Your task to perform on an android device: Open Yahoo.com Image 0: 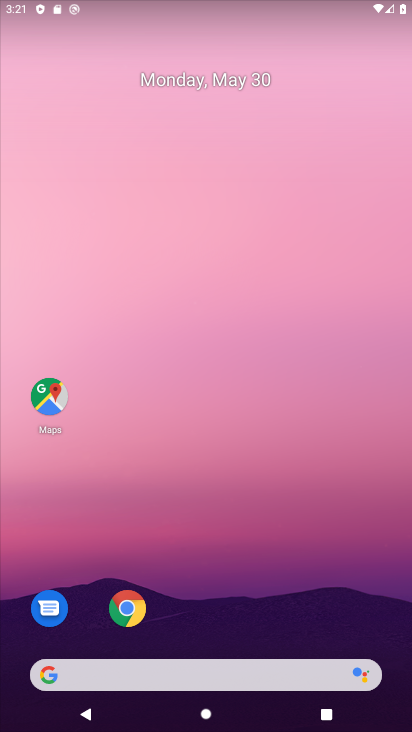
Step 0: click (134, 603)
Your task to perform on an android device: Open Yahoo.com Image 1: 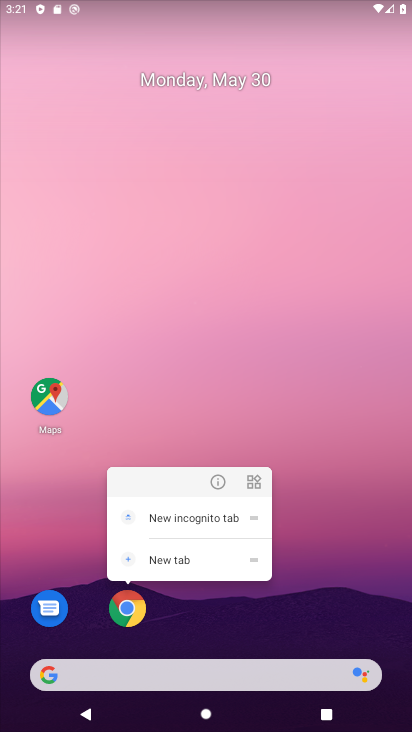
Step 1: click (121, 607)
Your task to perform on an android device: Open Yahoo.com Image 2: 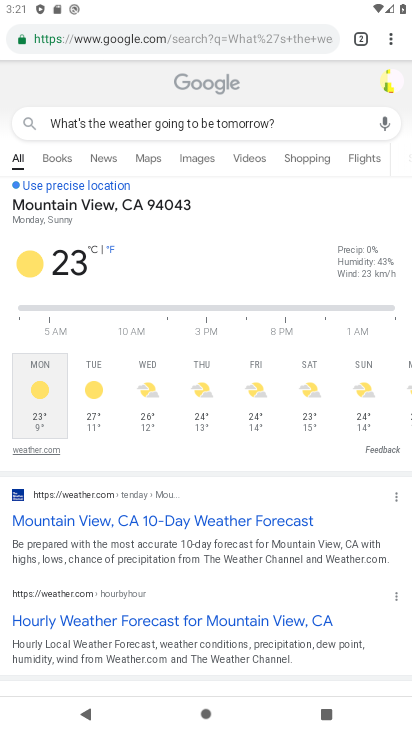
Step 2: click (395, 31)
Your task to perform on an android device: Open Yahoo.com Image 3: 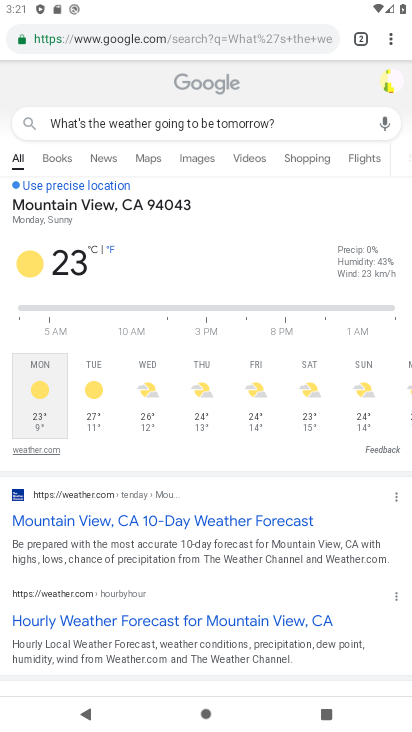
Step 3: click (398, 34)
Your task to perform on an android device: Open Yahoo.com Image 4: 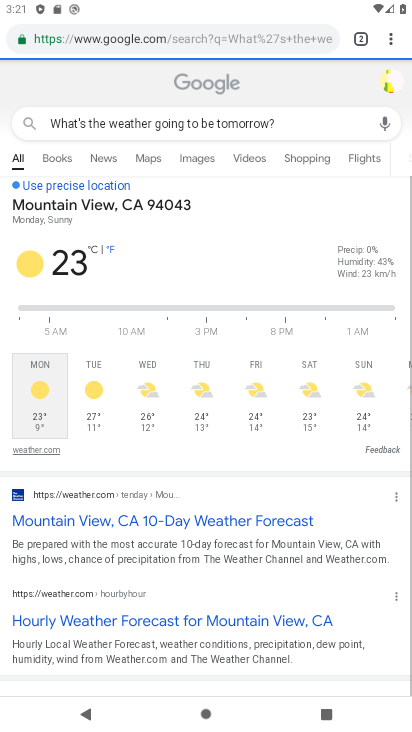
Step 4: click (390, 35)
Your task to perform on an android device: Open Yahoo.com Image 5: 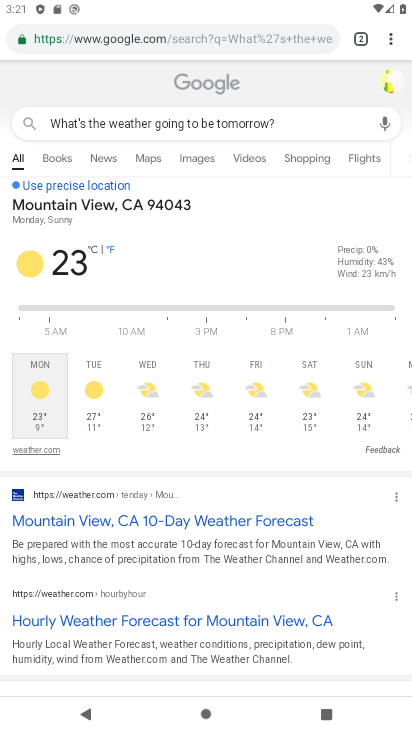
Step 5: click (390, 35)
Your task to perform on an android device: Open Yahoo.com Image 6: 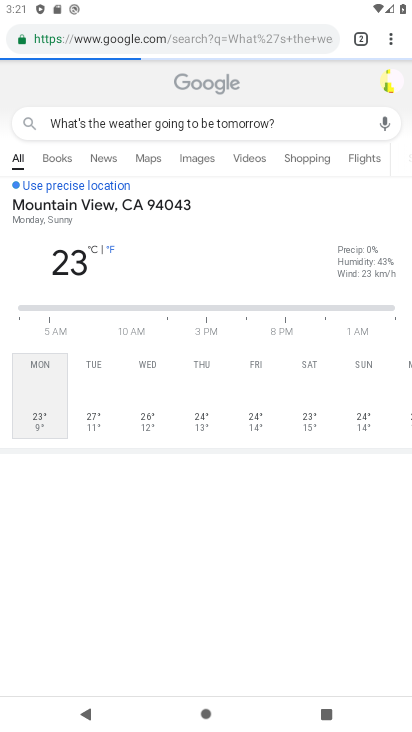
Step 6: click (391, 35)
Your task to perform on an android device: Open Yahoo.com Image 7: 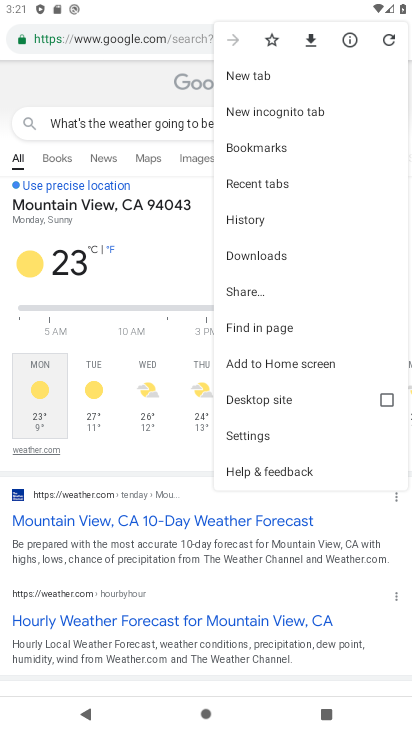
Step 7: click (254, 73)
Your task to perform on an android device: Open Yahoo.com Image 8: 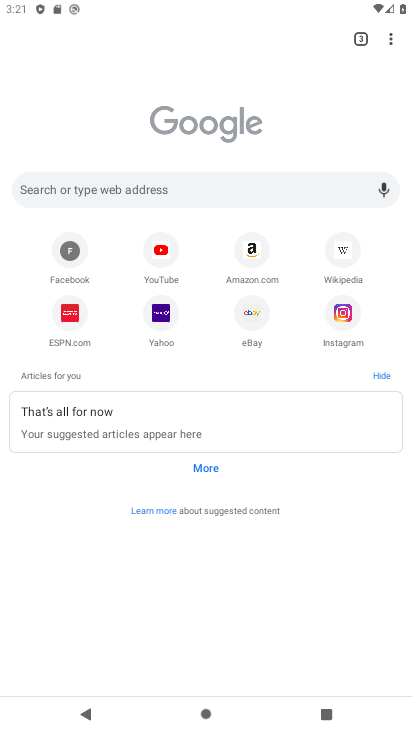
Step 8: click (156, 317)
Your task to perform on an android device: Open Yahoo.com Image 9: 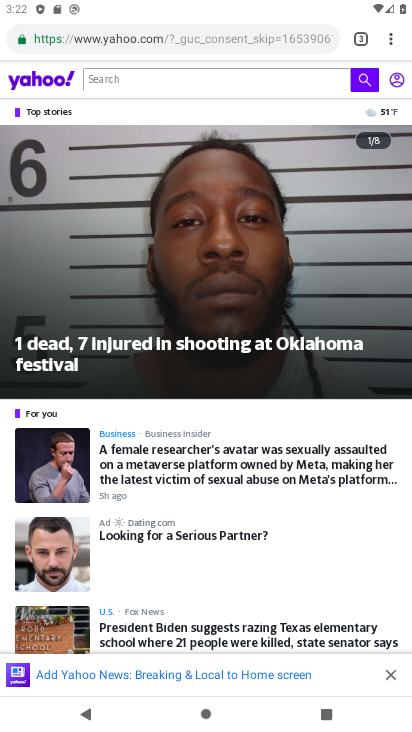
Step 9: task complete